Your task to perform on an android device: Go to Android settings Image 0: 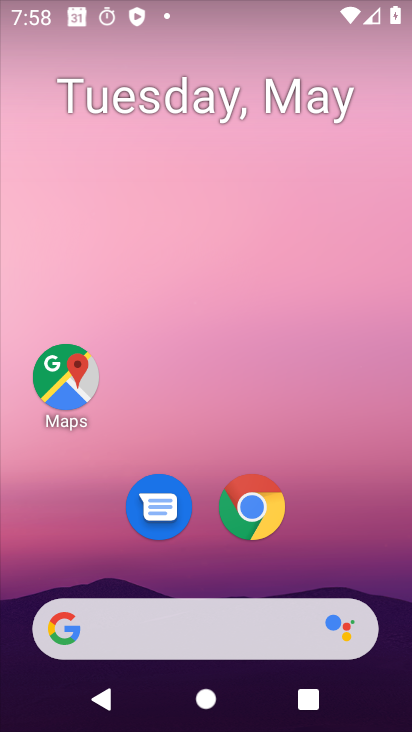
Step 0: drag from (283, 548) to (260, 181)
Your task to perform on an android device: Go to Android settings Image 1: 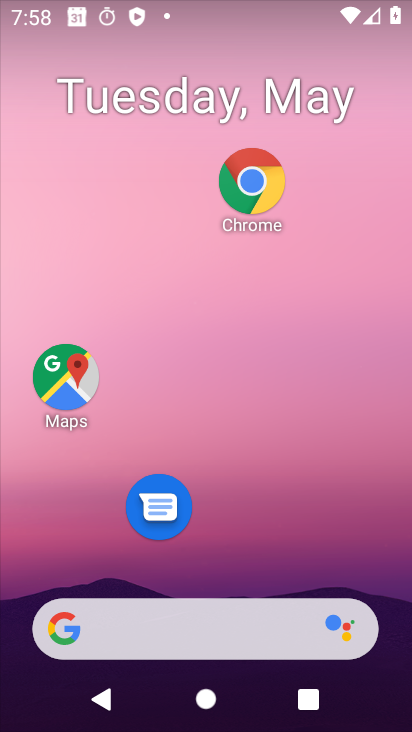
Step 1: drag from (259, 530) to (343, 90)
Your task to perform on an android device: Go to Android settings Image 2: 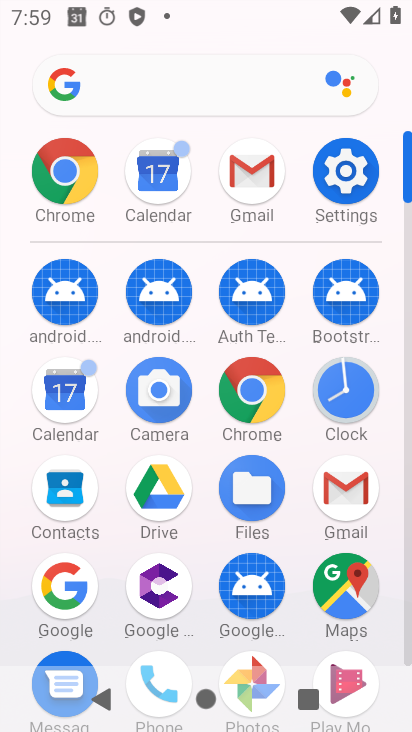
Step 2: click (352, 173)
Your task to perform on an android device: Go to Android settings Image 3: 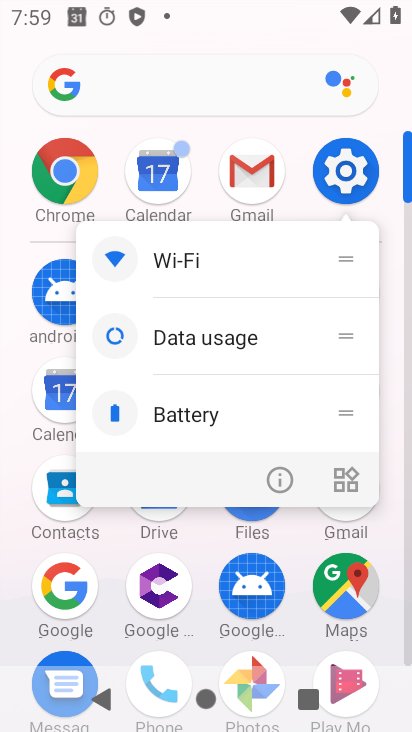
Step 3: click (339, 173)
Your task to perform on an android device: Go to Android settings Image 4: 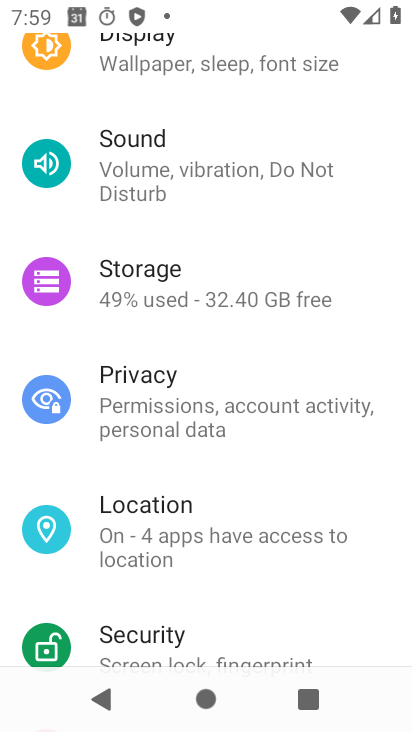
Step 4: drag from (235, 493) to (234, 323)
Your task to perform on an android device: Go to Android settings Image 5: 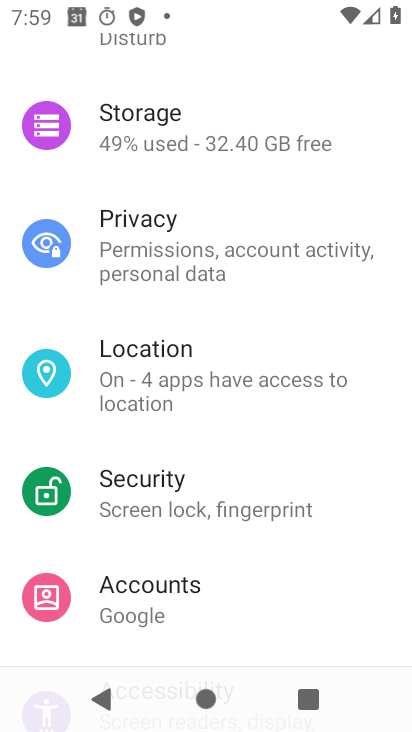
Step 5: drag from (195, 565) to (179, 376)
Your task to perform on an android device: Go to Android settings Image 6: 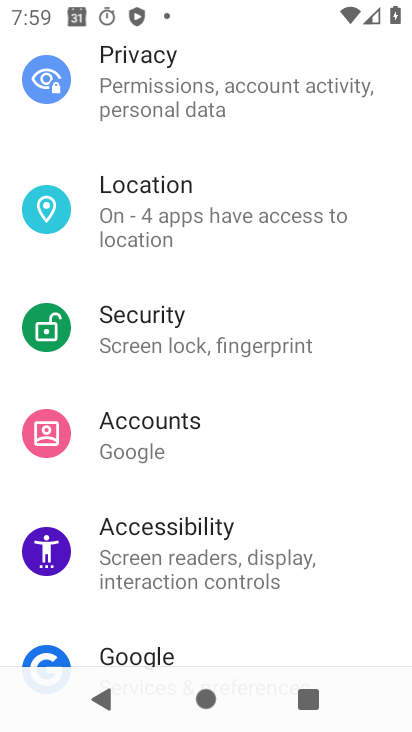
Step 6: drag from (229, 589) to (223, 421)
Your task to perform on an android device: Go to Android settings Image 7: 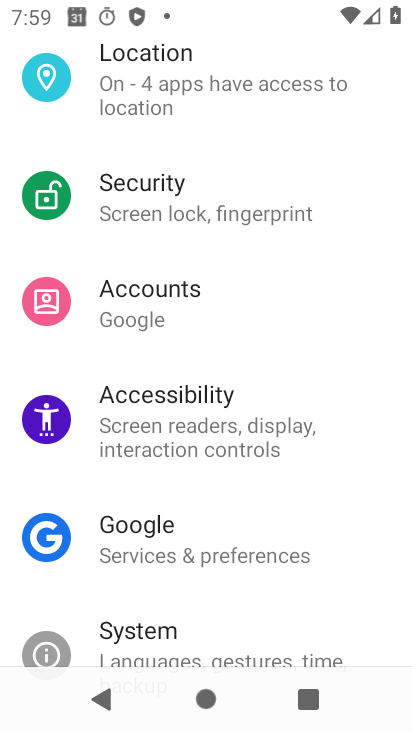
Step 7: click (258, 644)
Your task to perform on an android device: Go to Android settings Image 8: 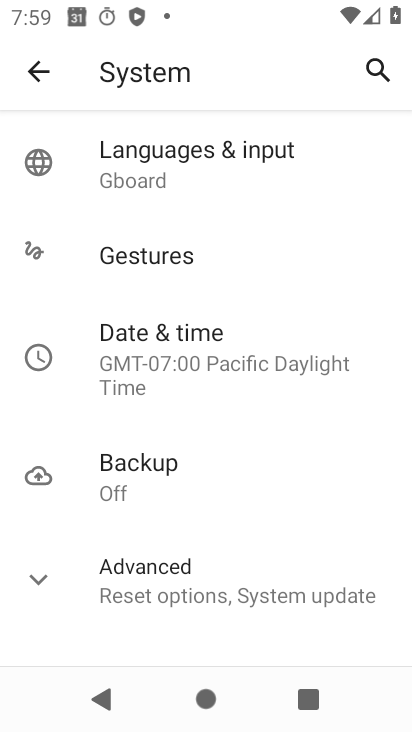
Step 8: task complete